Your task to perform on an android device: Is it going to rain this weekend? Image 0: 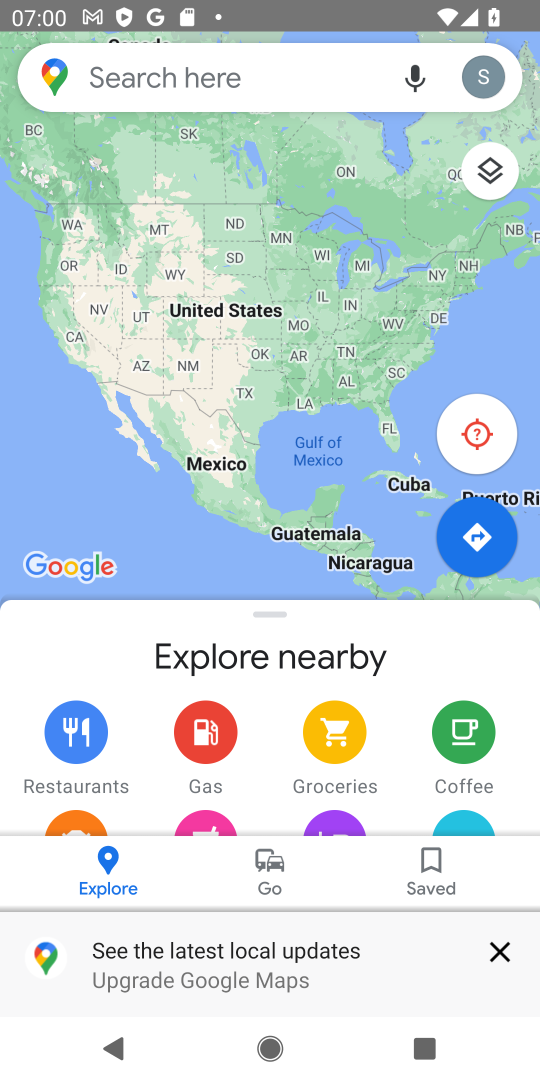
Step 0: press home button
Your task to perform on an android device: Is it going to rain this weekend? Image 1: 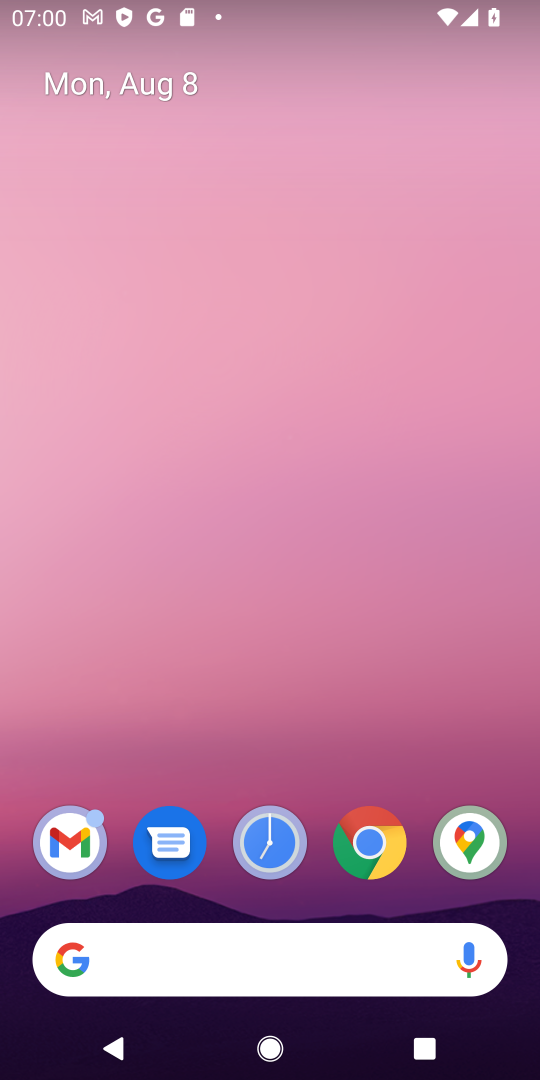
Step 1: click (357, 846)
Your task to perform on an android device: Is it going to rain this weekend? Image 2: 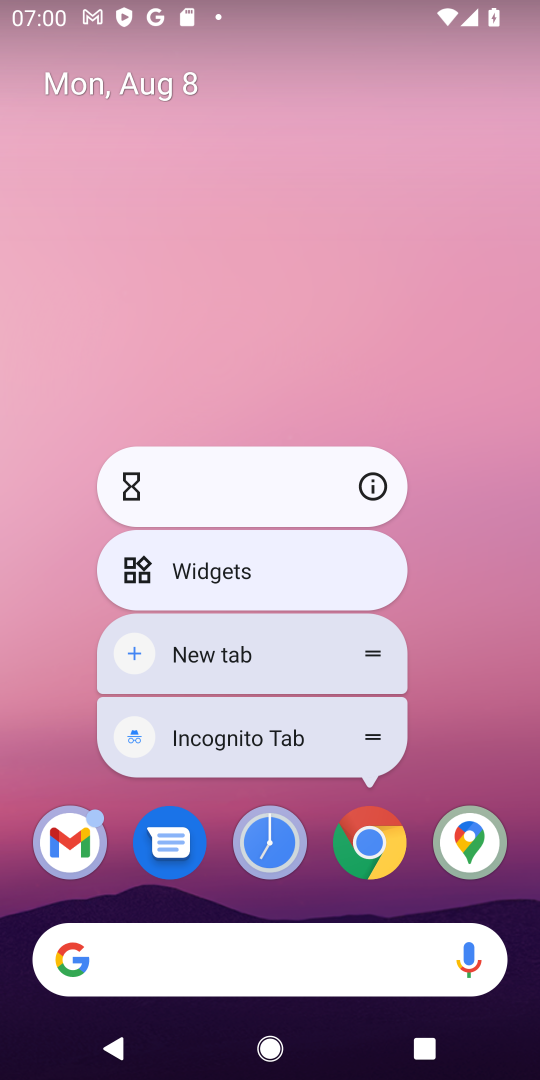
Step 2: click (373, 829)
Your task to perform on an android device: Is it going to rain this weekend? Image 3: 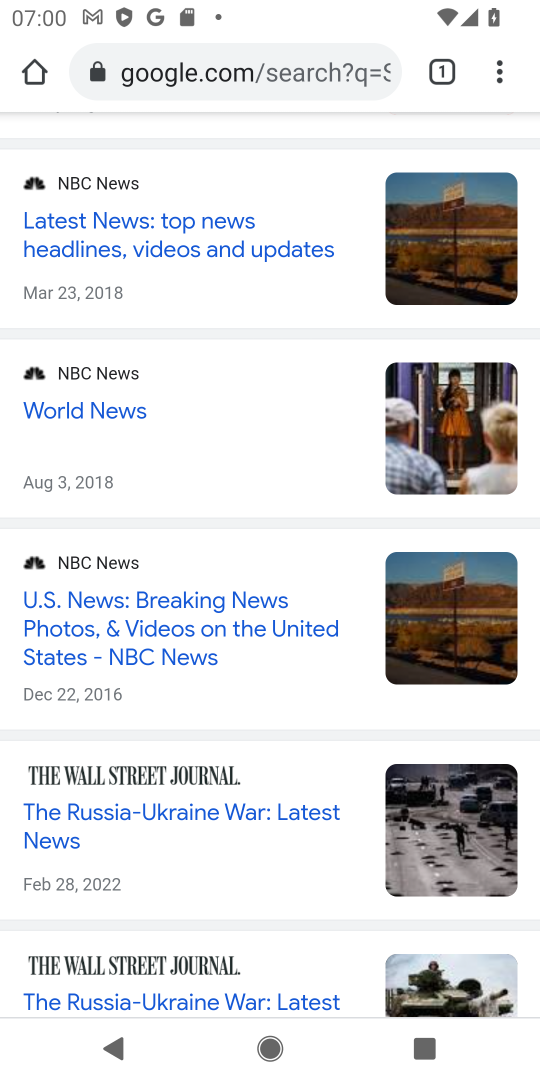
Step 3: click (205, 62)
Your task to perform on an android device: Is it going to rain this weekend? Image 4: 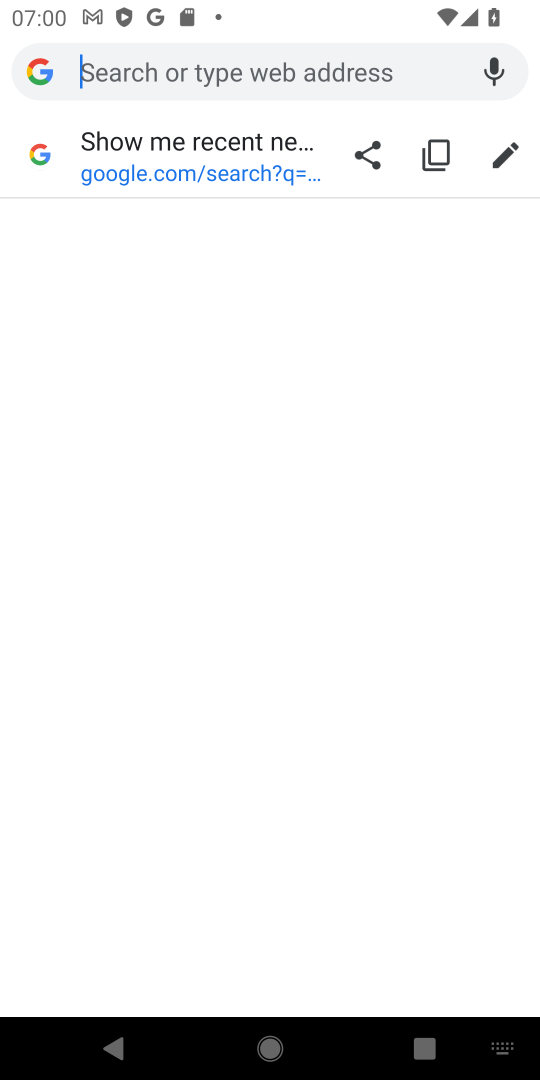
Step 4: type "Is it going to rain this weekend?"
Your task to perform on an android device: Is it going to rain this weekend? Image 5: 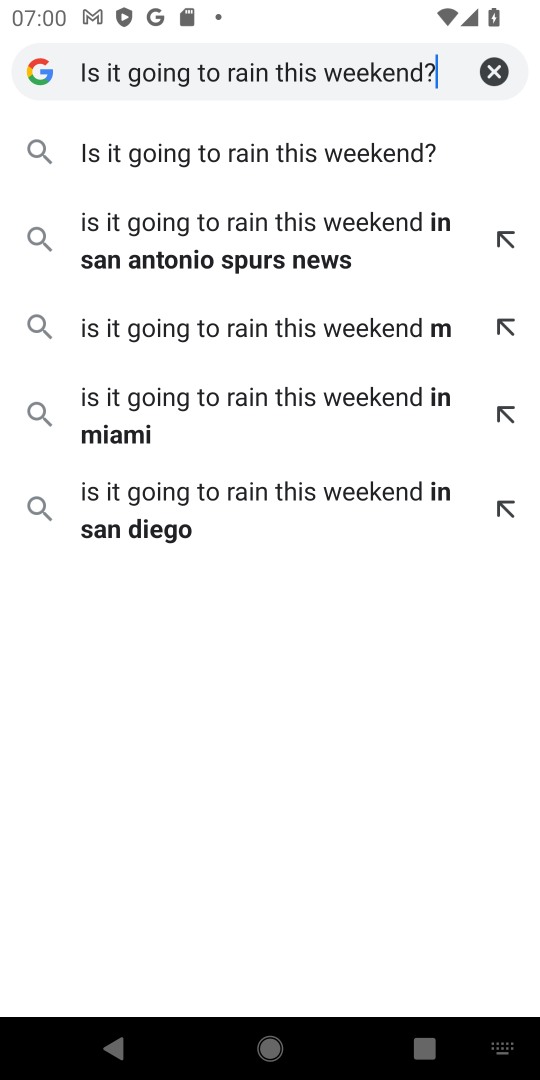
Step 5: click (183, 150)
Your task to perform on an android device: Is it going to rain this weekend? Image 6: 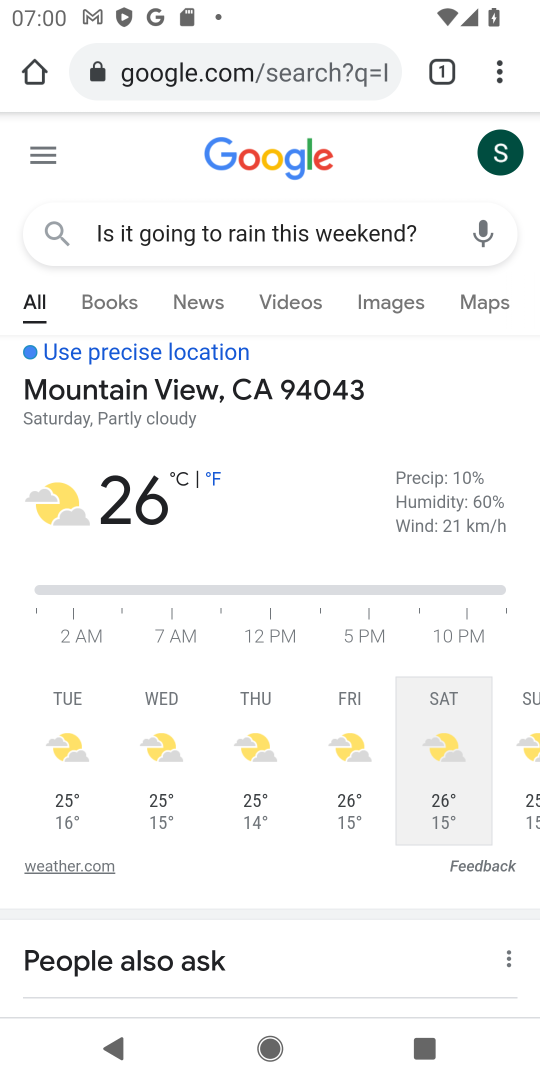
Step 6: task complete